Your task to perform on an android device: change the clock display to digital Image 0: 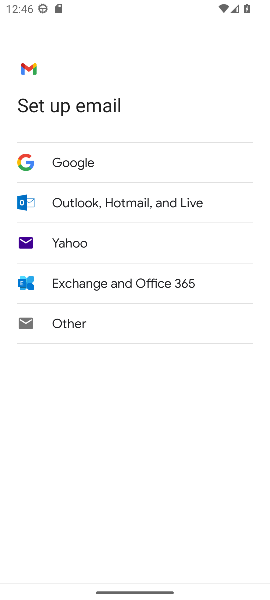
Step 0: press home button
Your task to perform on an android device: change the clock display to digital Image 1: 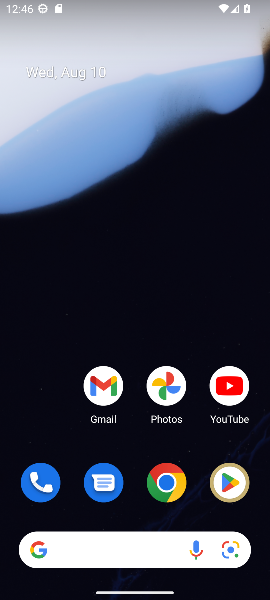
Step 1: drag from (182, 325) to (177, 131)
Your task to perform on an android device: change the clock display to digital Image 2: 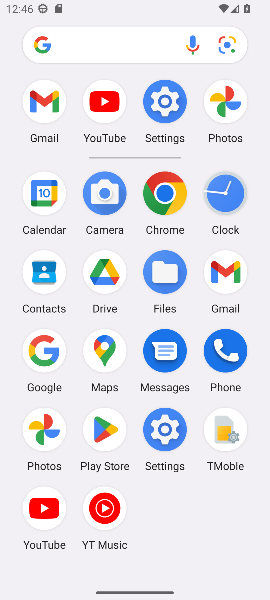
Step 2: click (222, 201)
Your task to perform on an android device: change the clock display to digital Image 3: 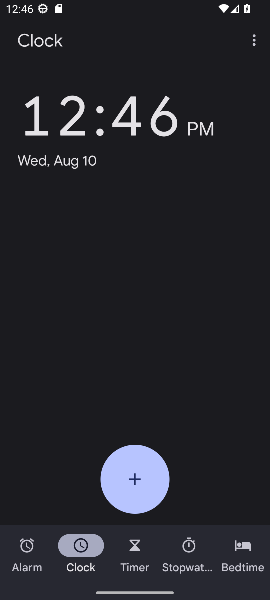
Step 3: task complete